Your task to perform on an android device: toggle wifi Image 0: 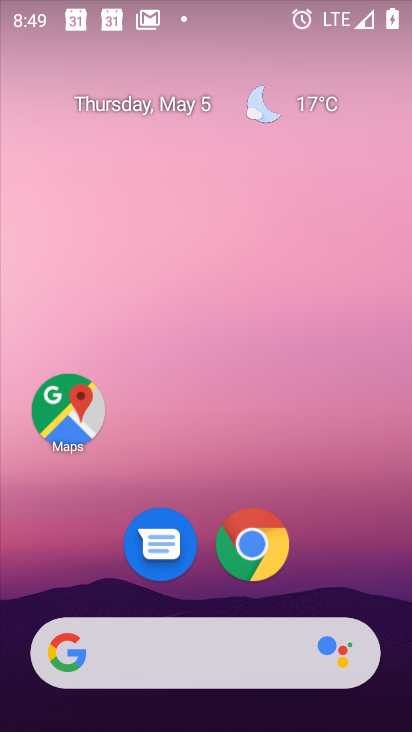
Step 0: drag from (368, 579) to (343, 11)
Your task to perform on an android device: toggle wifi Image 1: 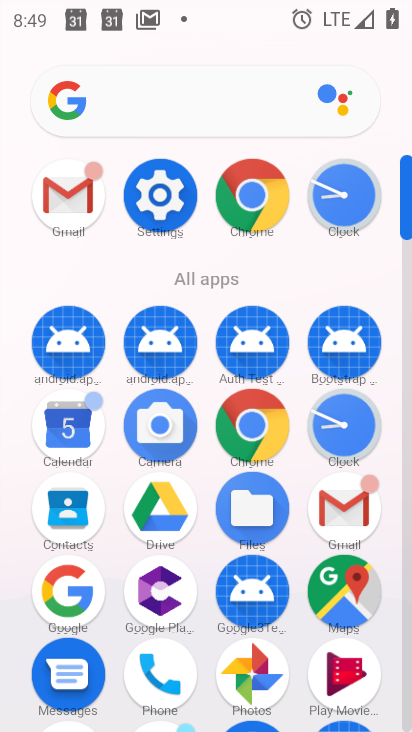
Step 1: click (173, 185)
Your task to perform on an android device: toggle wifi Image 2: 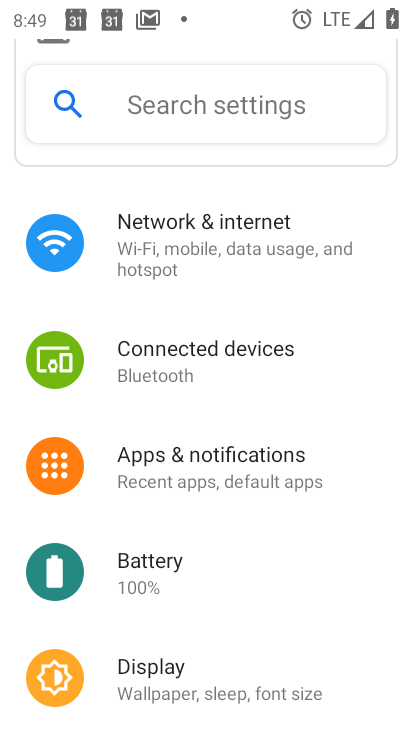
Step 2: click (221, 209)
Your task to perform on an android device: toggle wifi Image 3: 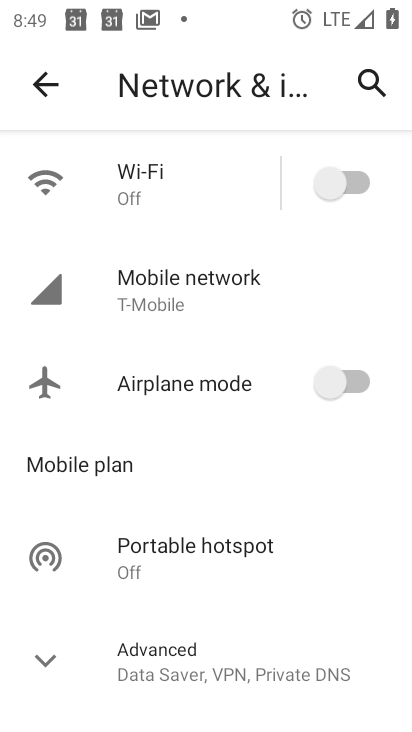
Step 3: click (349, 169)
Your task to perform on an android device: toggle wifi Image 4: 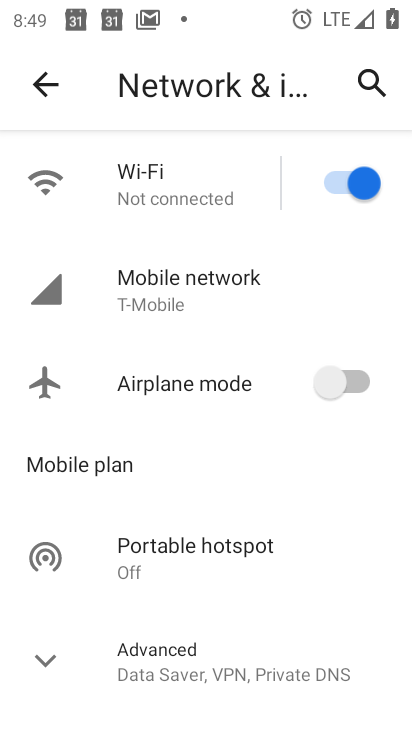
Step 4: task complete